Your task to perform on an android device: Do I have any events today? Image 0: 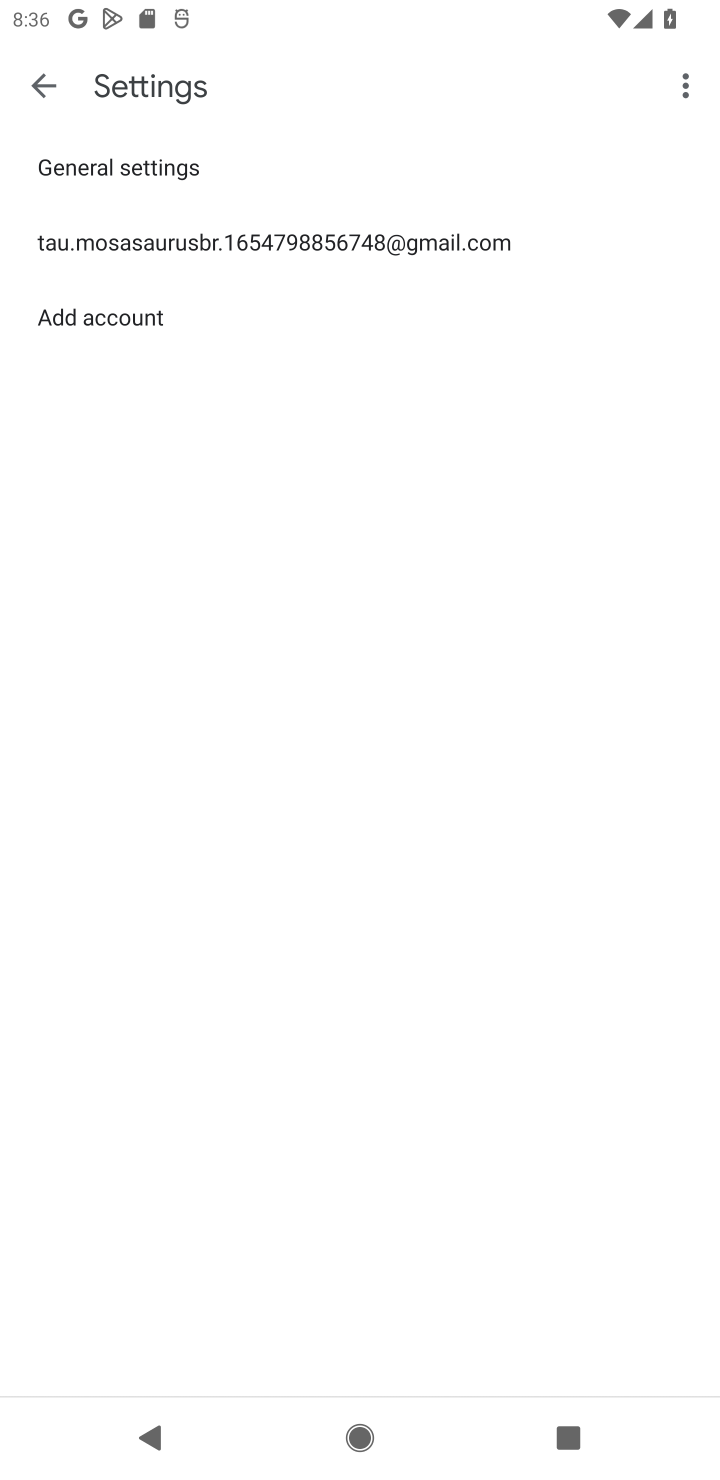
Step 0: press home button
Your task to perform on an android device: Do I have any events today? Image 1: 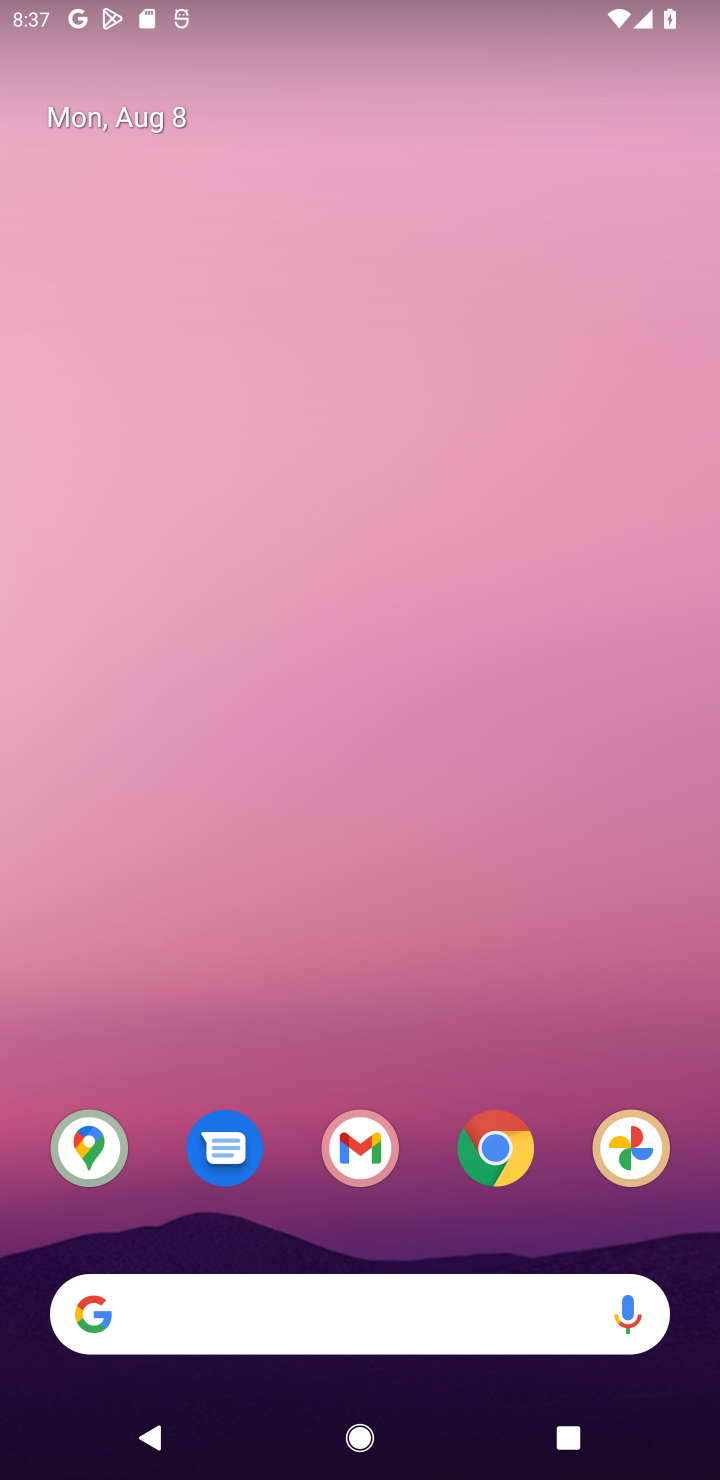
Step 1: drag from (375, 1269) to (368, 285)
Your task to perform on an android device: Do I have any events today? Image 2: 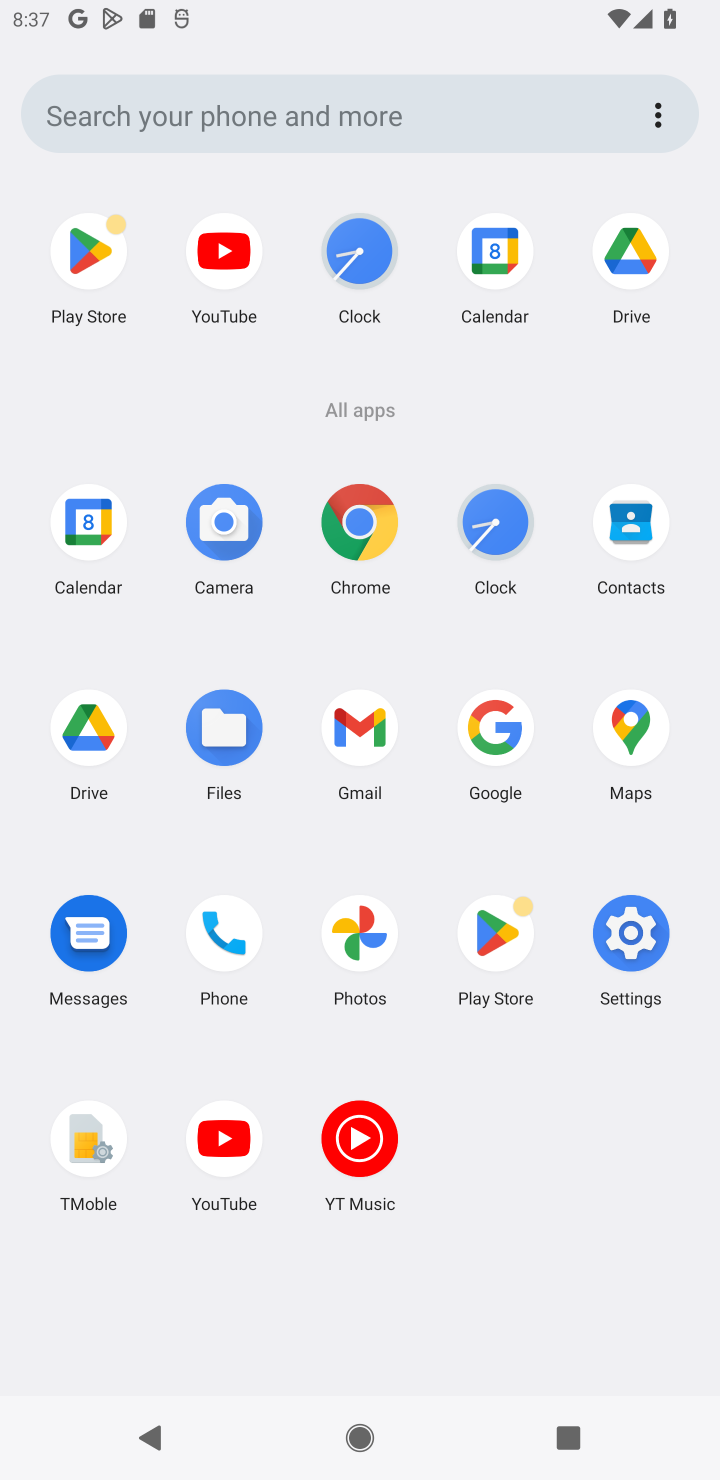
Step 2: click (93, 547)
Your task to perform on an android device: Do I have any events today? Image 3: 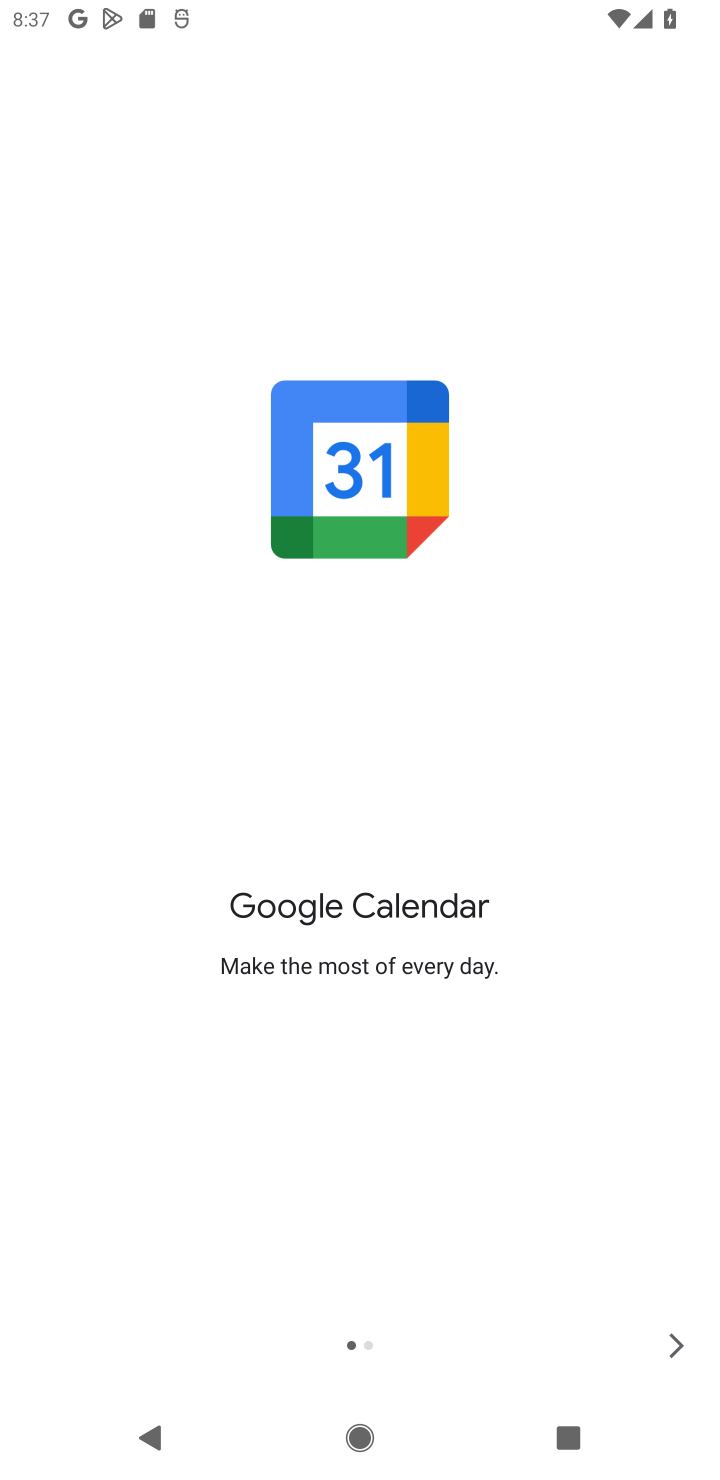
Step 3: click (674, 1355)
Your task to perform on an android device: Do I have any events today? Image 4: 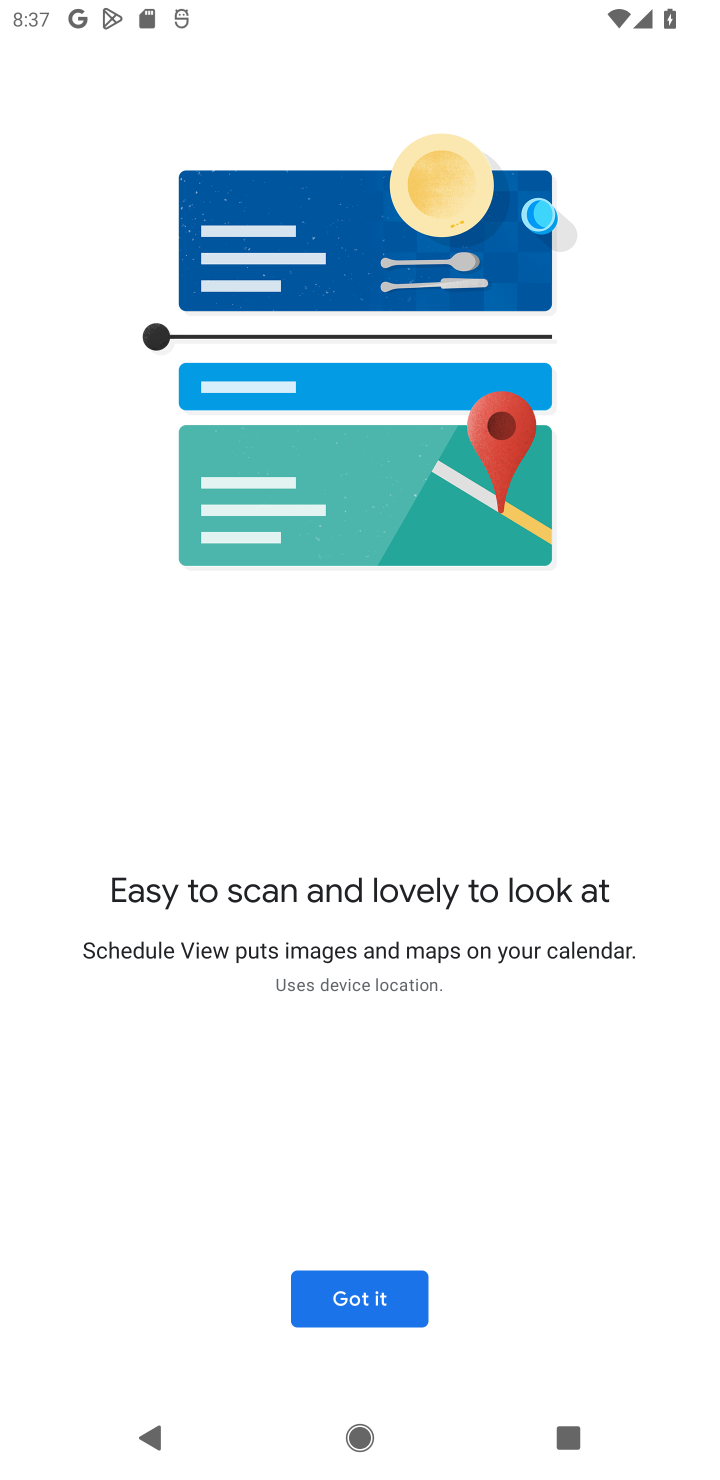
Step 4: click (391, 1308)
Your task to perform on an android device: Do I have any events today? Image 5: 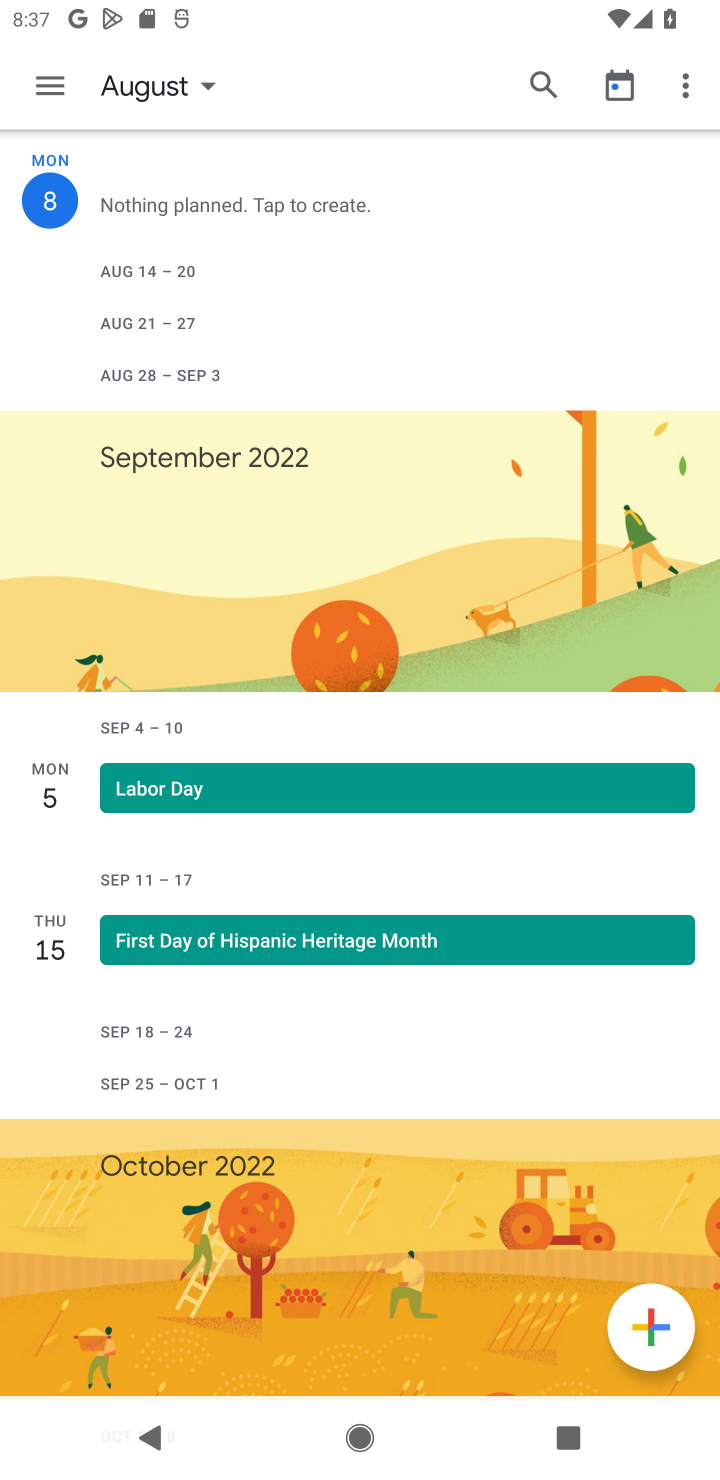
Step 5: click (52, 97)
Your task to perform on an android device: Do I have any events today? Image 6: 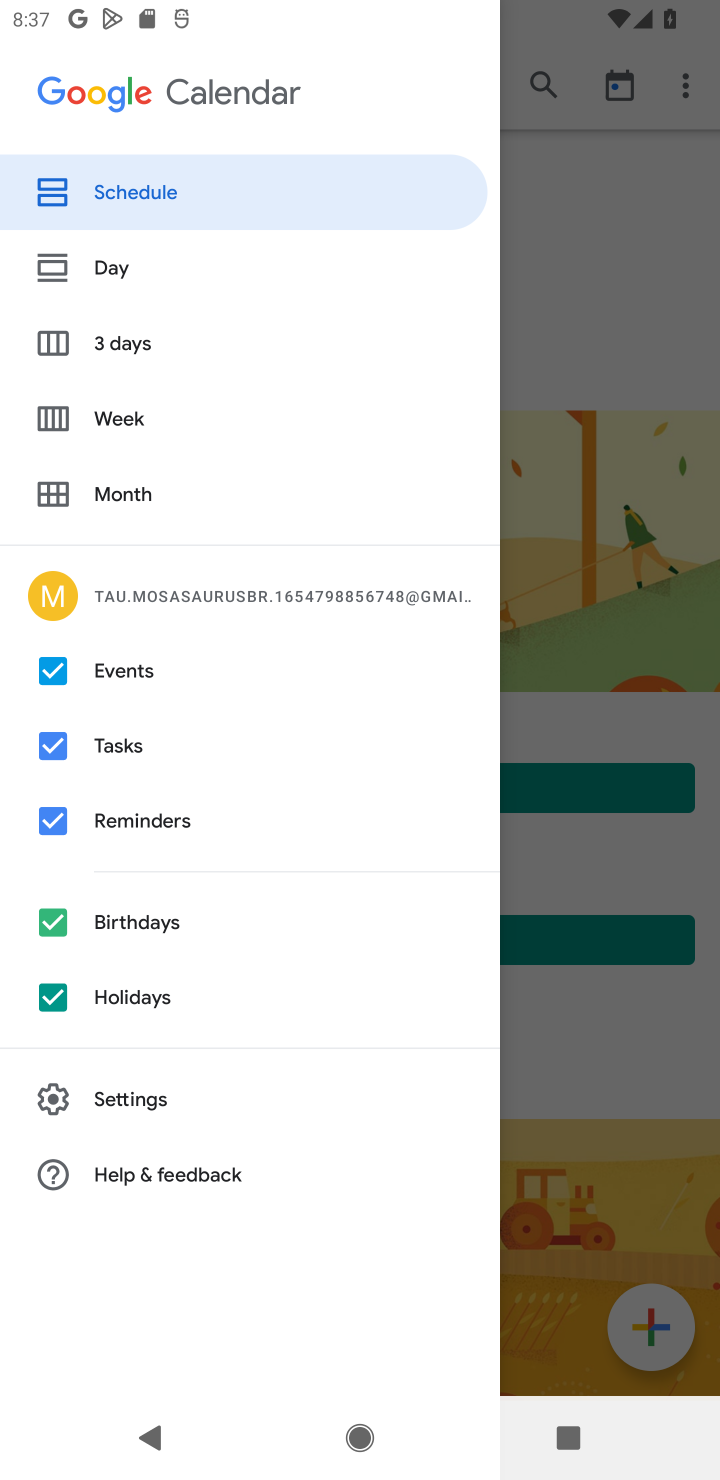
Step 6: click (151, 206)
Your task to perform on an android device: Do I have any events today? Image 7: 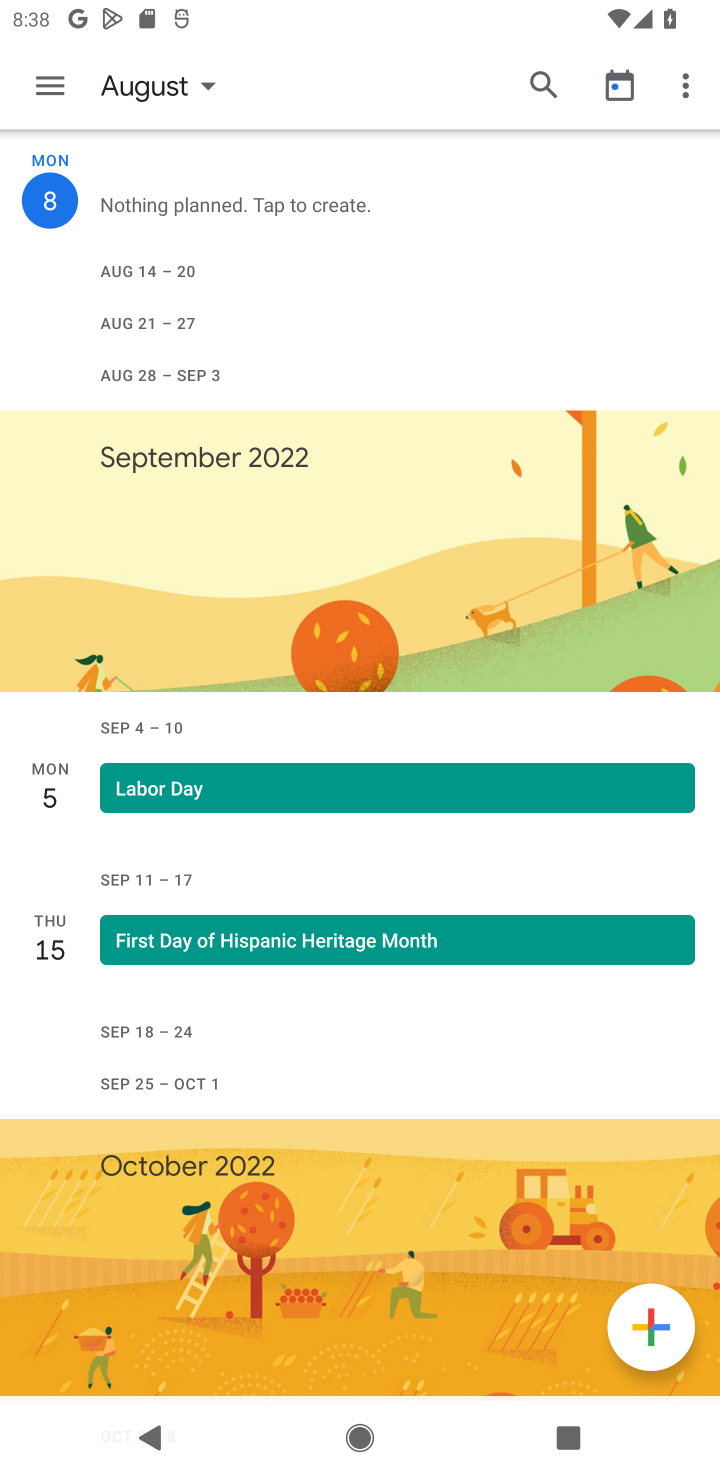
Step 7: task complete